Your task to perform on an android device: Clear the shopping cart on amazon.com. Add "razer kraken" to the cart on amazon.com Image 0: 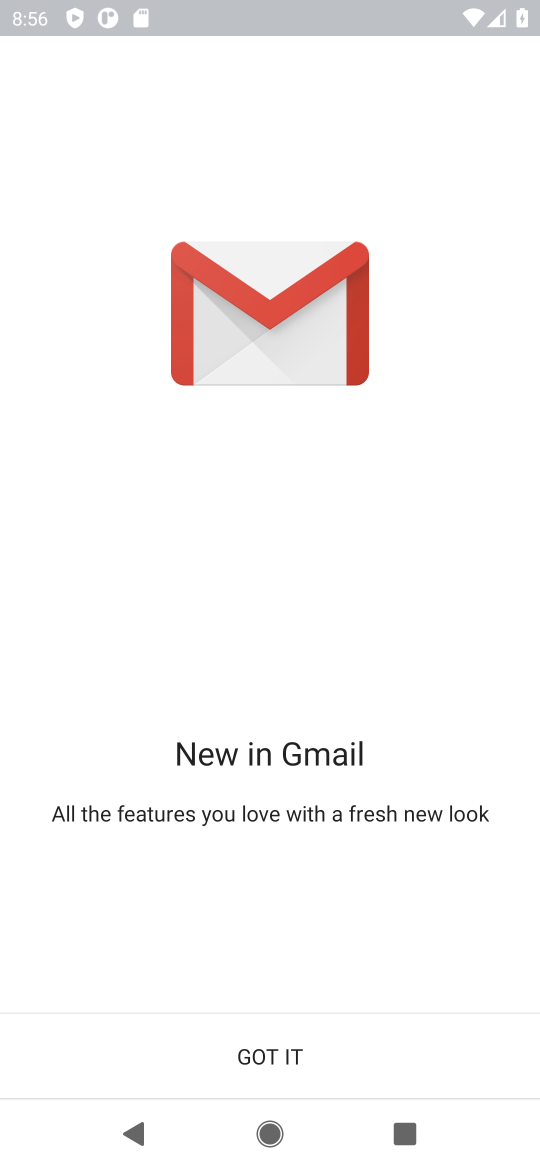
Step 0: press home button
Your task to perform on an android device: Clear the shopping cart on amazon.com. Add "razer kraken" to the cart on amazon.com Image 1: 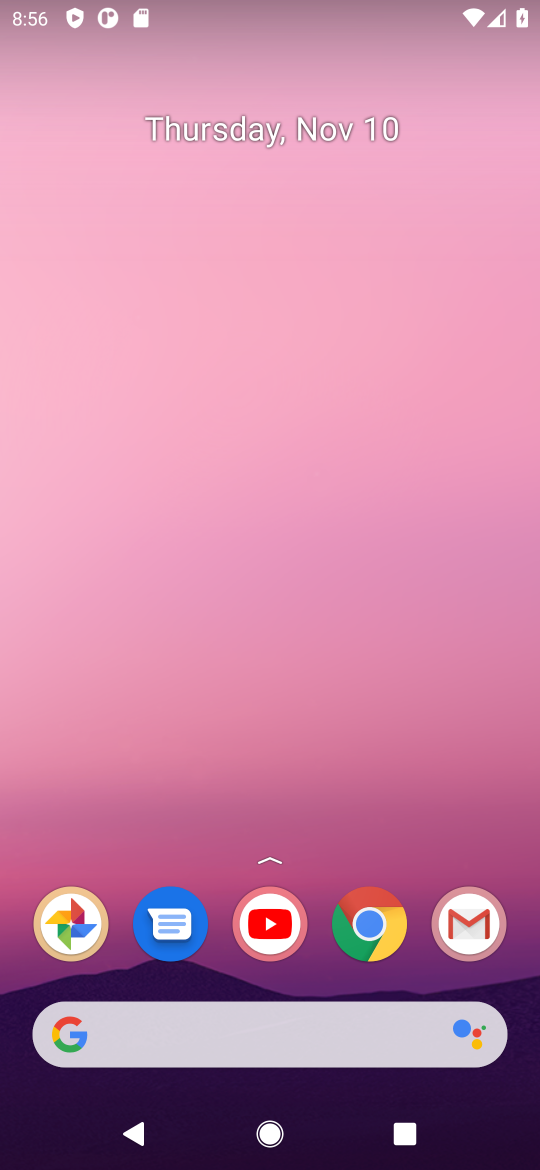
Step 1: click (368, 924)
Your task to perform on an android device: Clear the shopping cart on amazon.com. Add "razer kraken" to the cart on amazon.com Image 2: 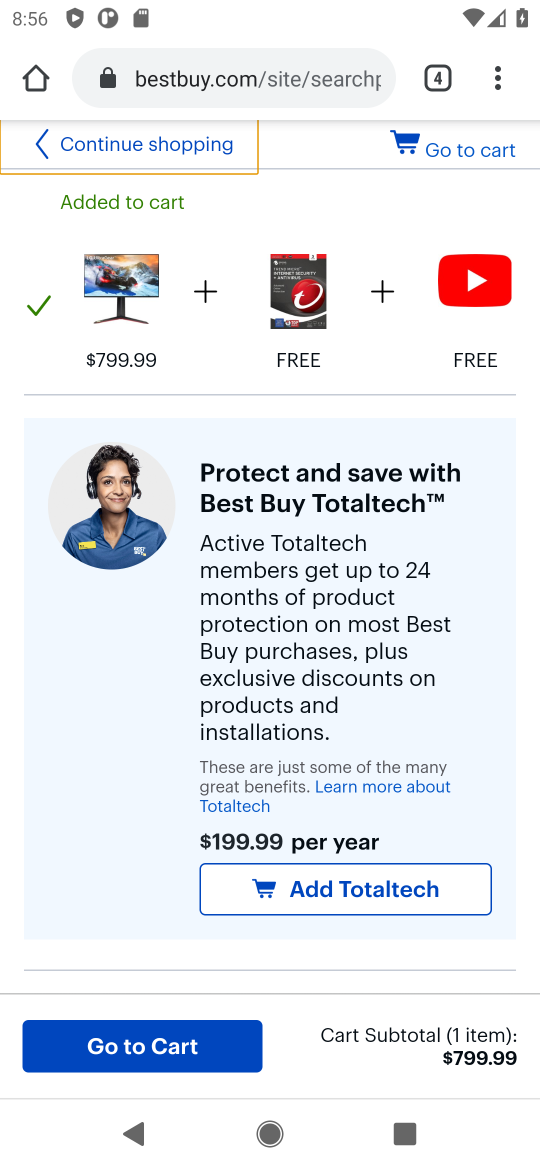
Step 2: click (176, 72)
Your task to perform on an android device: Clear the shopping cart on amazon.com. Add "razer kraken" to the cart on amazon.com Image 3: 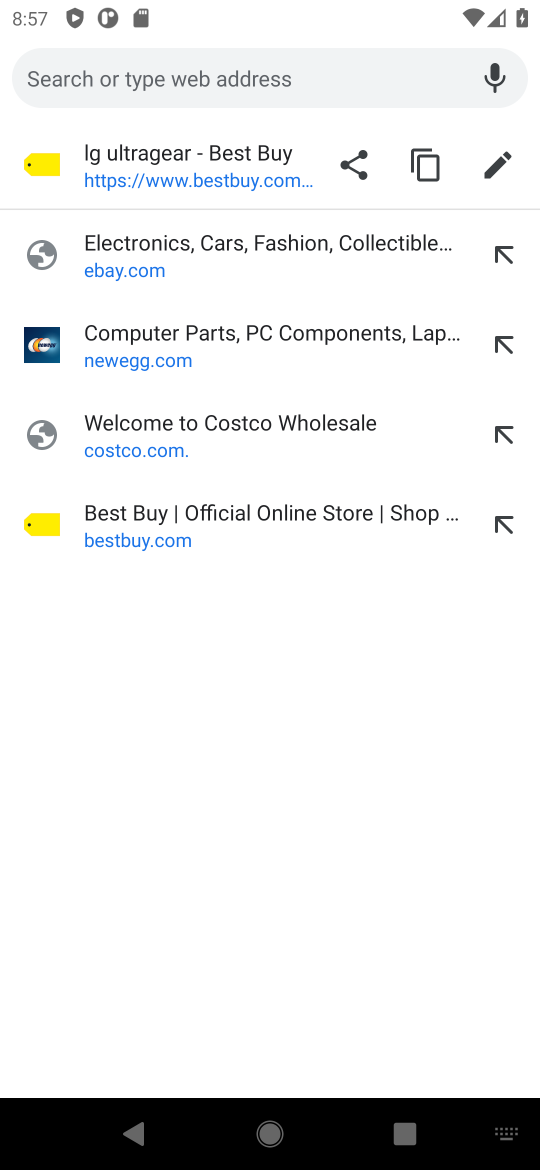
Step 3: click (128, 69)
Your task to perform on an android device: Clear the shopping cart on amazon.com. Add "razer kraken" to the cart on amazon.com Image 4: 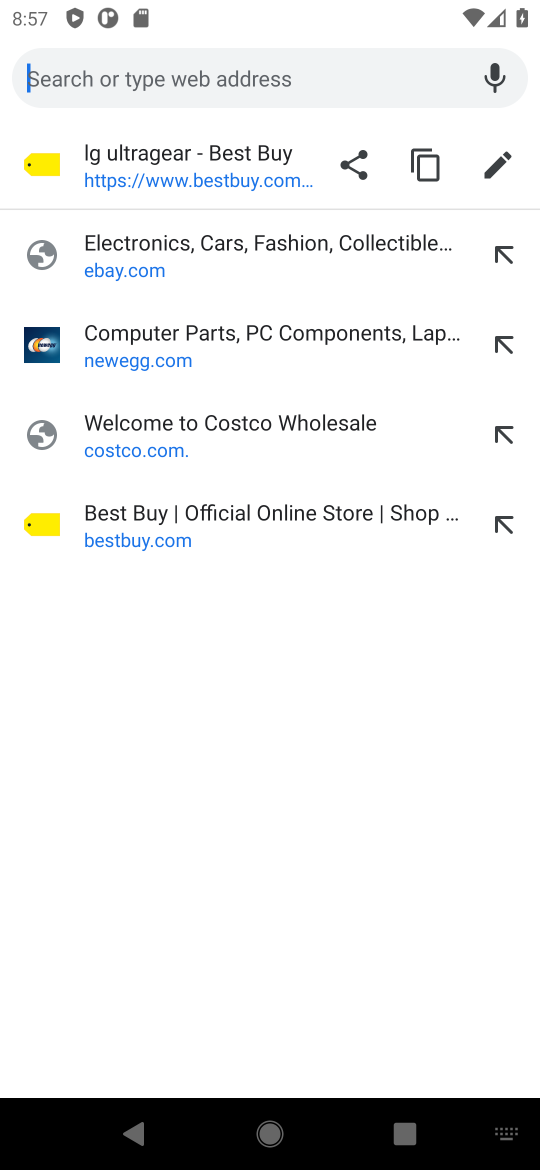
Step 4: type "amazon.com"
Your task to perform on an android device: Clear the shopping cart on amazon.com. Add "razer kraken" to the cart on amazon.com Image 5: 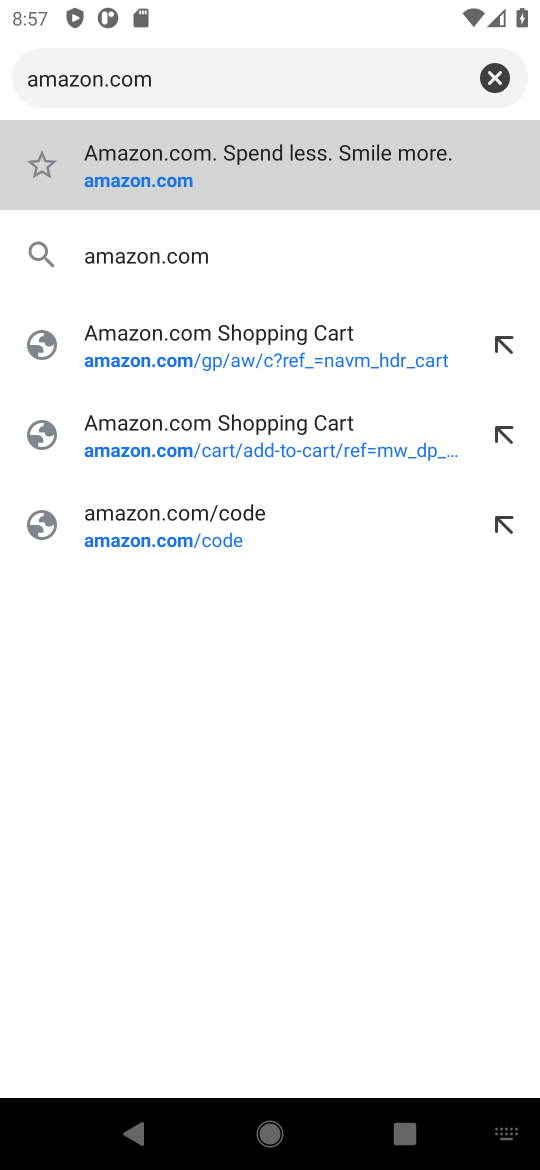
Step 5: click (118, 182)
Your task to perform on an android device: Clear the shopping cart on amazon.com. Add "razer kraken" to the cart on amazon.com Image 6: 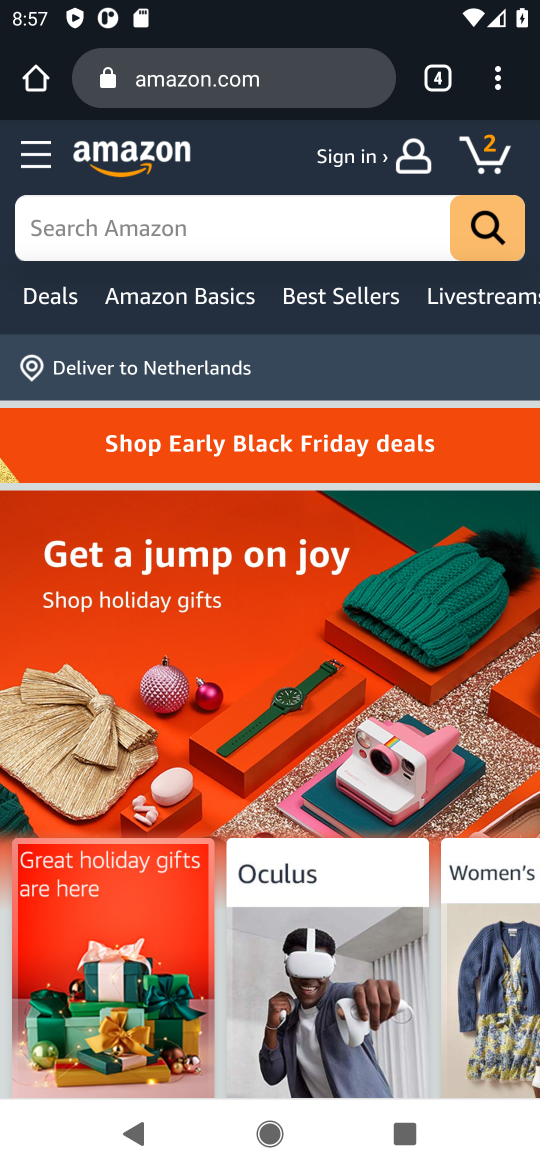
Step 6: click (486, 158)
Your task to perform on an android device: Clear the shopping cart on amazon.com. Add "razer kraken" to the cart on amazon.com Image 7: 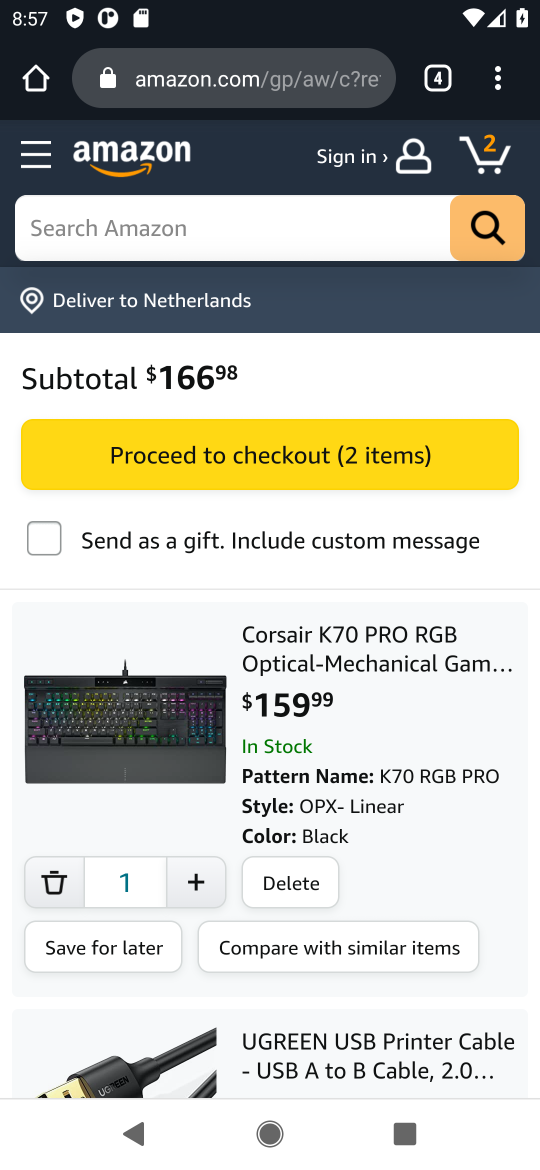
Step 7: click (55, 882)
Your task to perform on an android device: Clear the shopping cart on amazon.com. Add "razer kraken" to the cart on amazon.com Image 8: 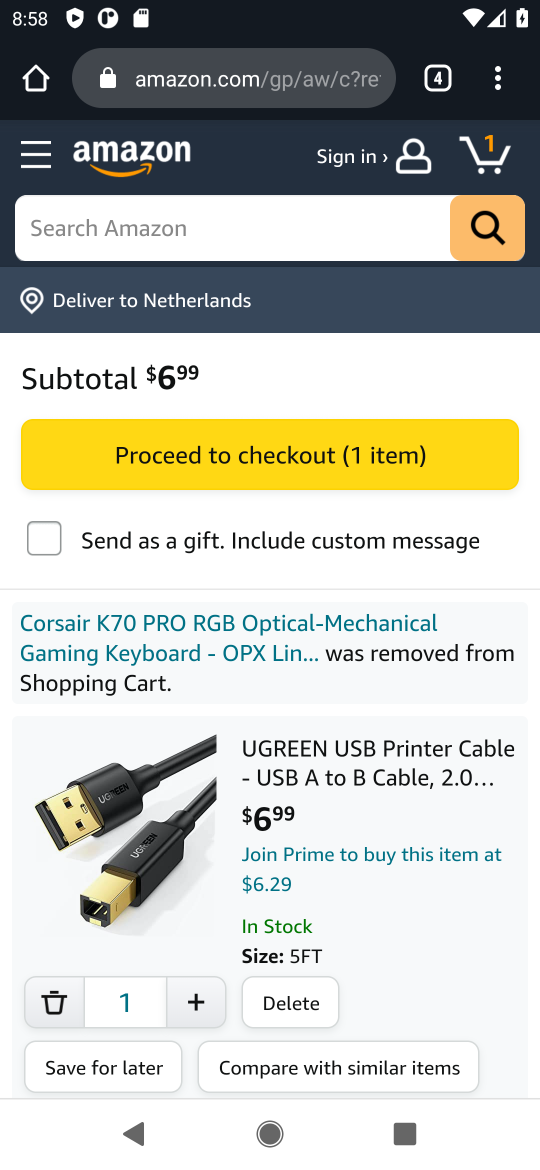
Step 8: click (66, 999)
Your task to perform on an android device: Clear the shopping cart on amazon.com. Add "razer kraken" to the cart on amazon.com Image 9: 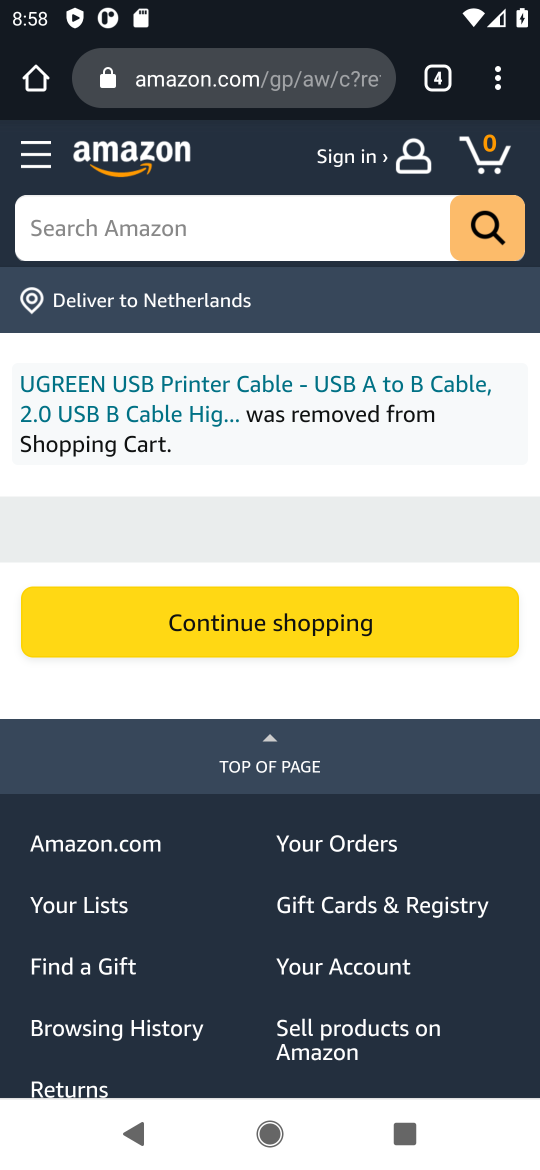
Step 9: click (177, 235)
Your task to perform on an android device: Clear the shopping cart on amazon.com. Add "razer kraken" to the cart on amazon.com Image 10: 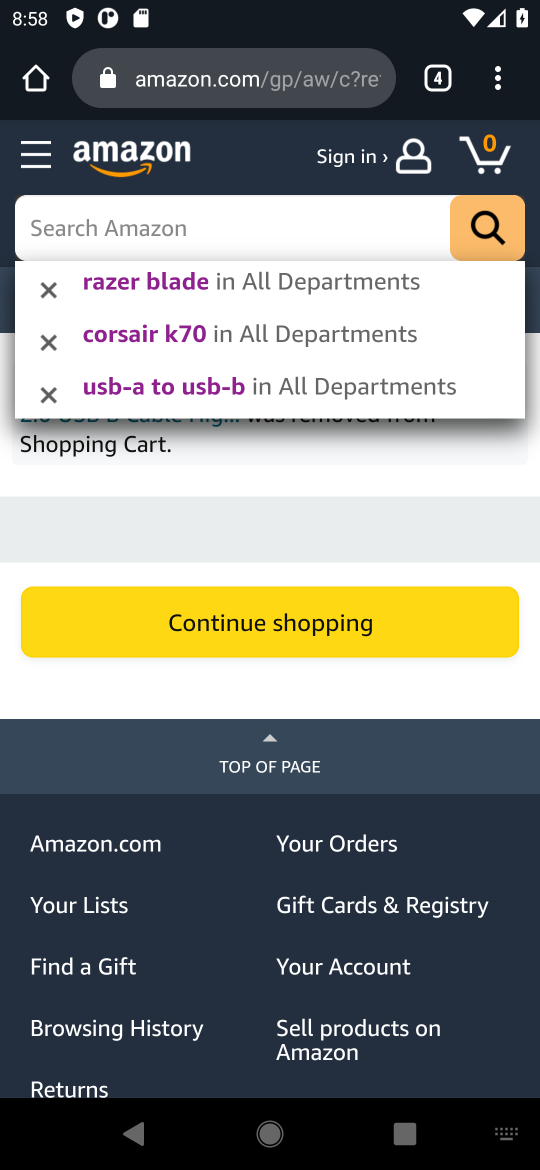
Step 10: type "razer kraken"
Your task to perform on an android device: Clear the shopping cart on amazon.com. Add "razer kraken" to the cart on amazon.com Image 11: 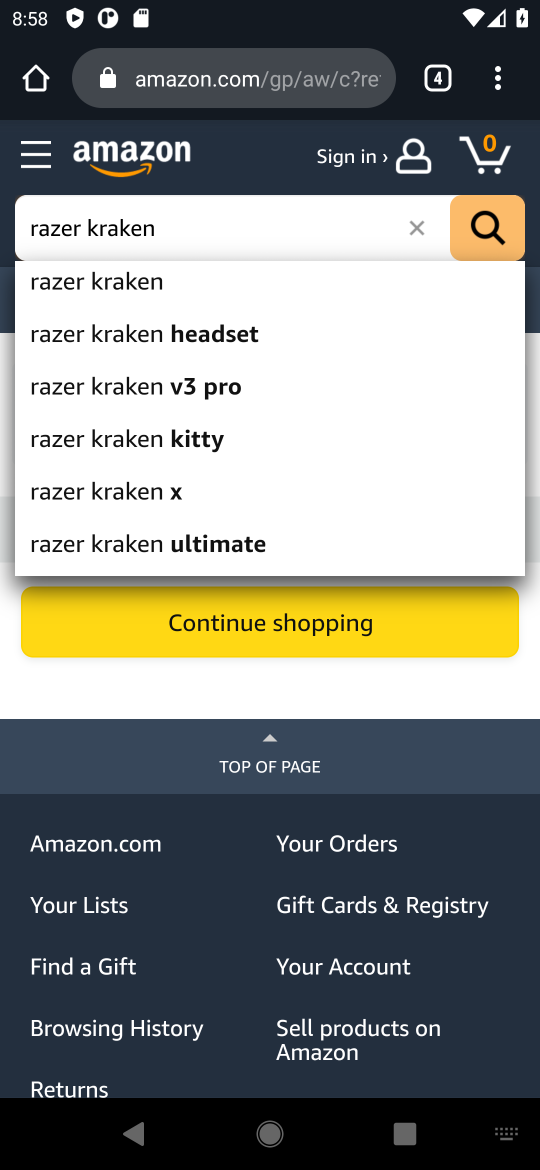
Step 11: click (126, 285)
Your task to perform on an android device: Clear the shopping cart on amazon.com. Add "razer kraken" to the cart on amazon.com Image 12: 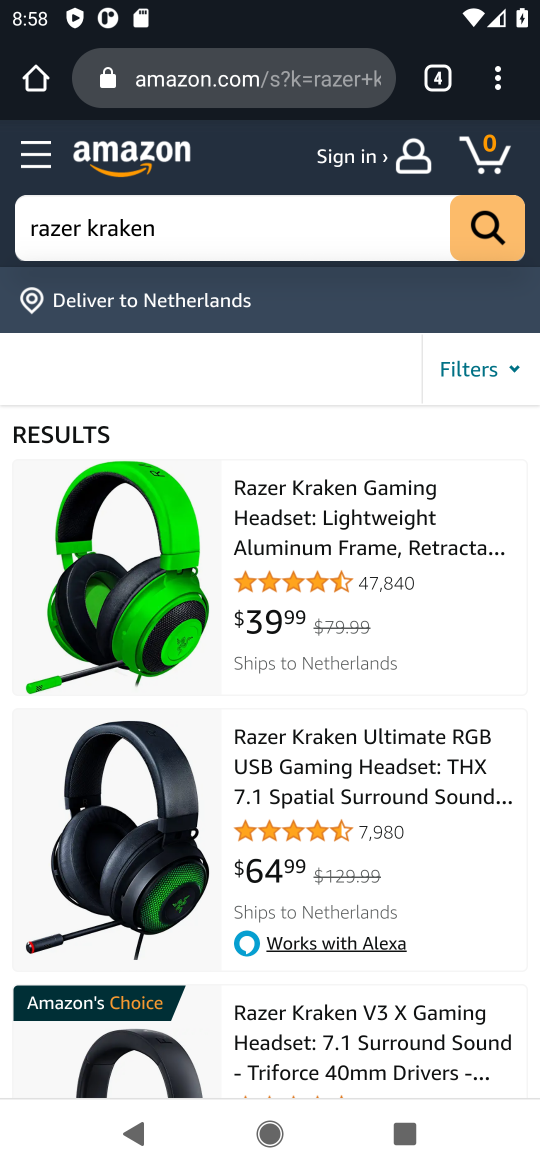
Step 12: click (137, 636)
Your task to perform on an android device: Clear the shopping cart on amazon.com. Add "razer kraken" to the cart on amazon.com Image 13: 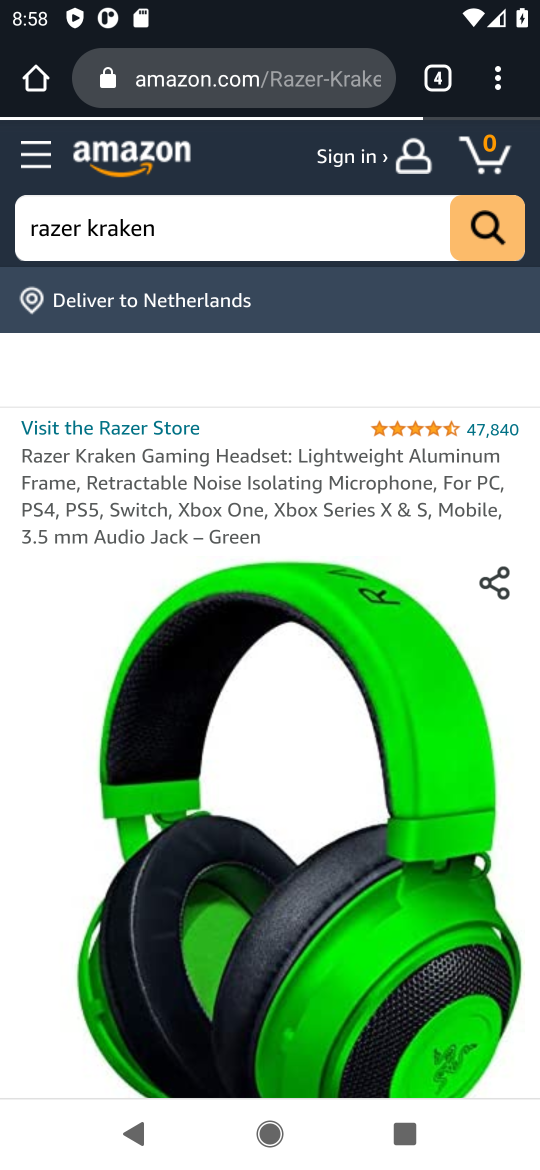
Step 13: drag from (212, 730) to (233, 212)
Your task to perform on an android device: Clear the shopping cart on amazon.com. Add "razer kraken" to the cart on amazon.com Image 14: 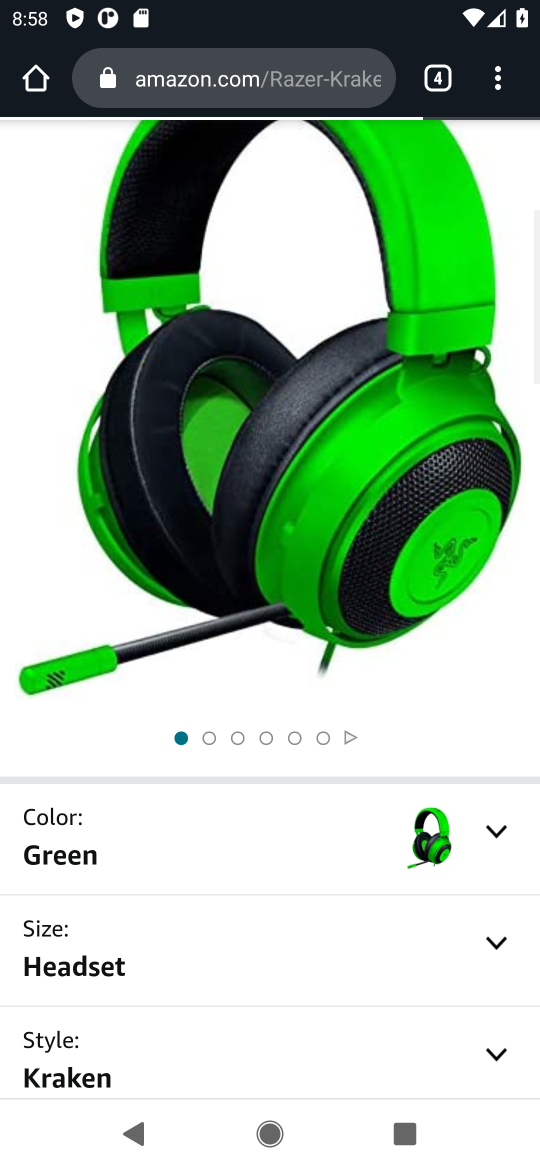
Step 14: drag from (243, 711) to (235, 240)
Your task to perform on an android device: Clear the shopping cart on amazon.com. Add "razer kraken" to the cart on amazon.com Image 15: 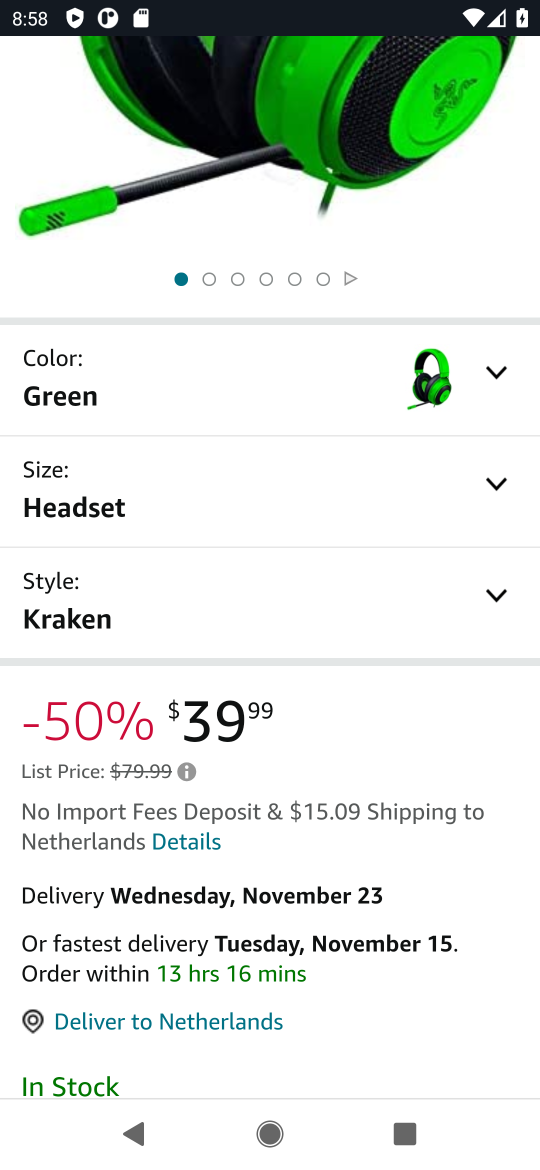
Step 15: drag from (291, 839) to (252, 341)
Your task to perform on an android device: Clear the shopping cart on amazon.com. Add "razer kraken" to the cart on amazon.com Image 16: 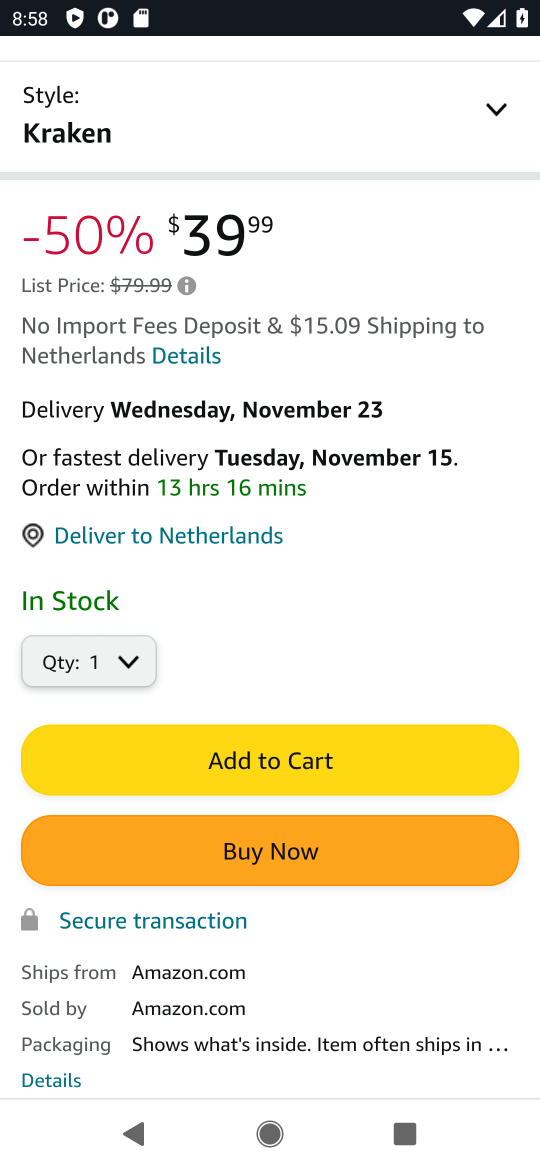
Step 16: click (237, 763)
Your task to perform on an android device: Clear the shopping cart on amazon.com. Add "razer kraken" to the cart on amazon.com Image 17: 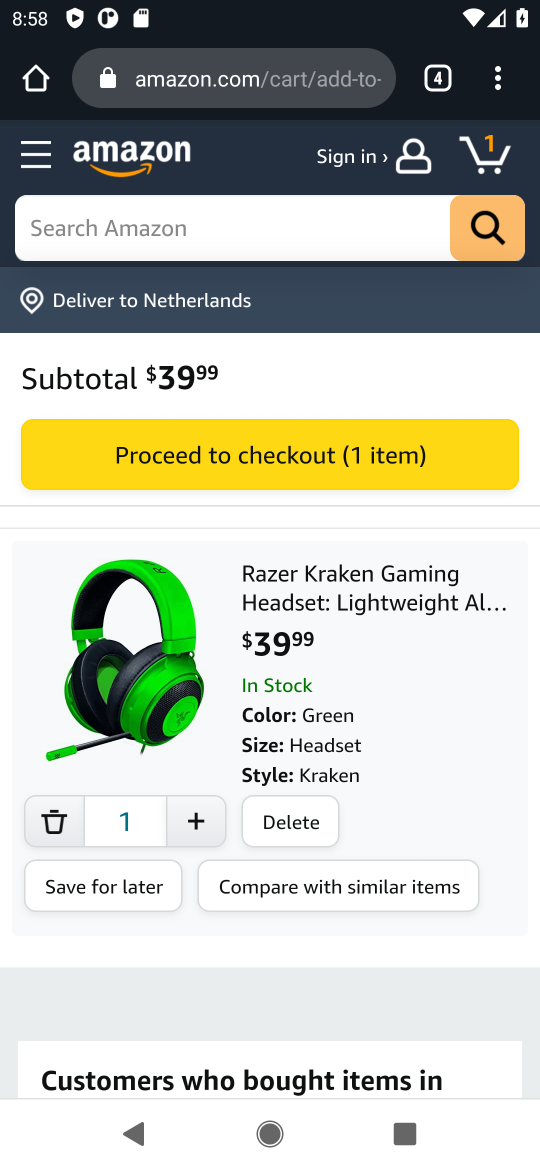
Step 17: task complete